Your task to perform on an android device: open chrome privacy settings Image 0: 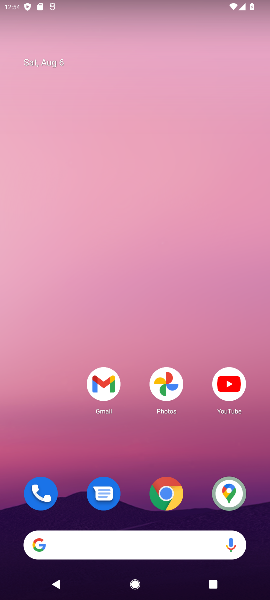
Step 0: click (163, 504)
Your task to perform on an android device: open chrome privacy settings Image 1: 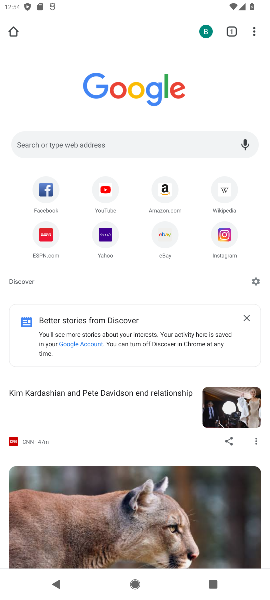
Step 1: drag from (254, 39) to (165, 266)
Your task to perform on an android device: open chrome privacy settings Image 2: 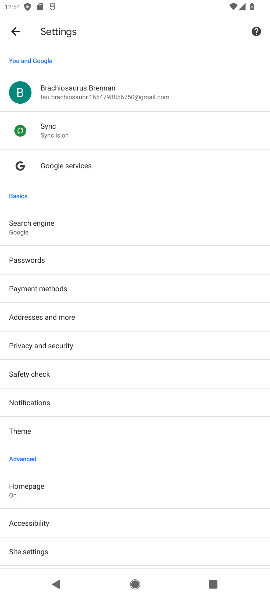
Step 2: drag from (84, 440) to (53, 90)
Your task to perform on an android device: open chrome privacy settings Image 3: 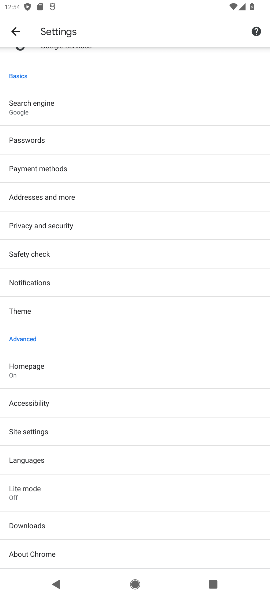
Step 3: click (46, 235)
Your task to perform on an android device: open chrome privacy settings Image 4: 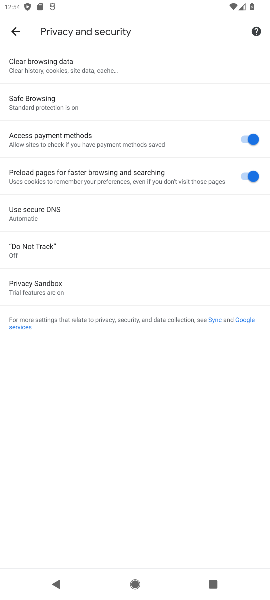
Step 4: task complete